Your task to perform on an android device: Open network settings Image 0: 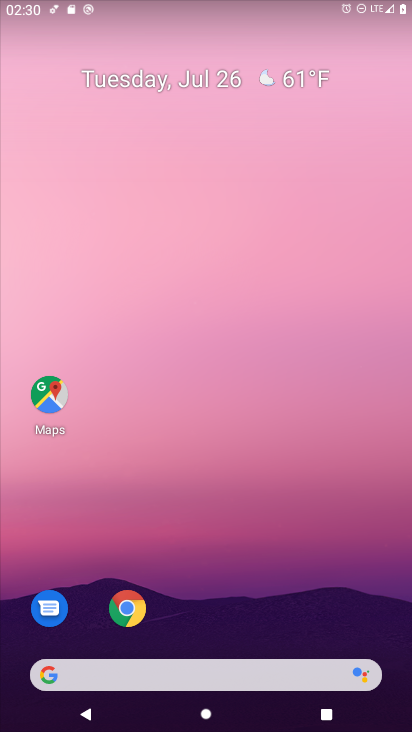
Step 0: drag from (61, 552) to (240, 113)
Your task to perform on an android device: Open network settings Image 1: 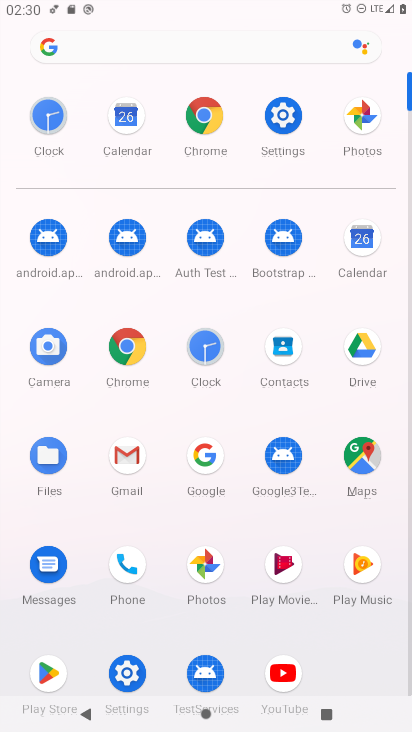
Step 1: click (276, 122)
Your task to perform on an android device: Open network settings Image 2: 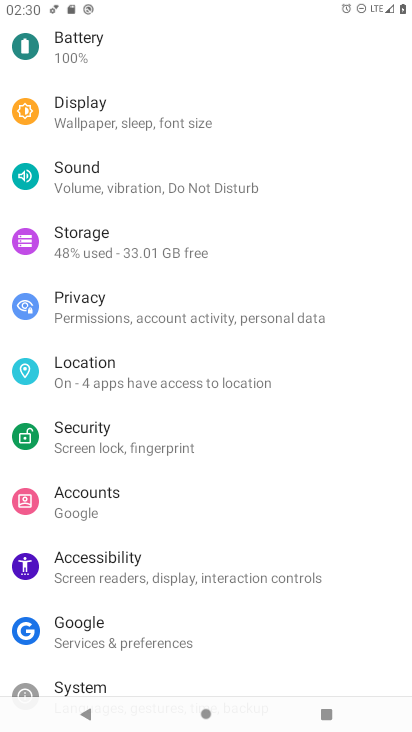
Step 2: press back button
Your task to perform on an android device: Open network settings Image 3: 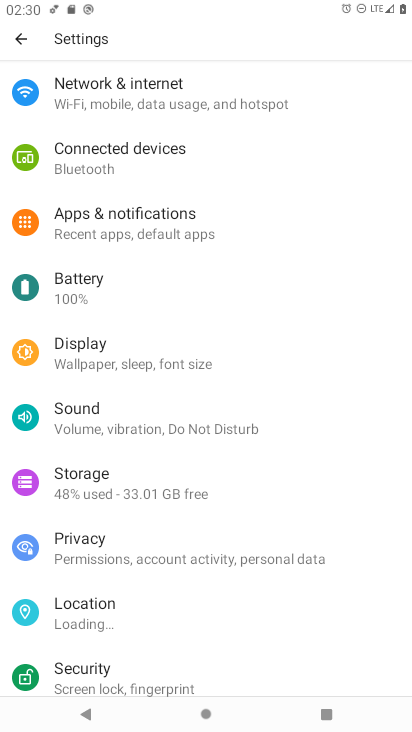
Step 3: click (114, 112)
Your task to perform on an android device: Open network settings Image 4: 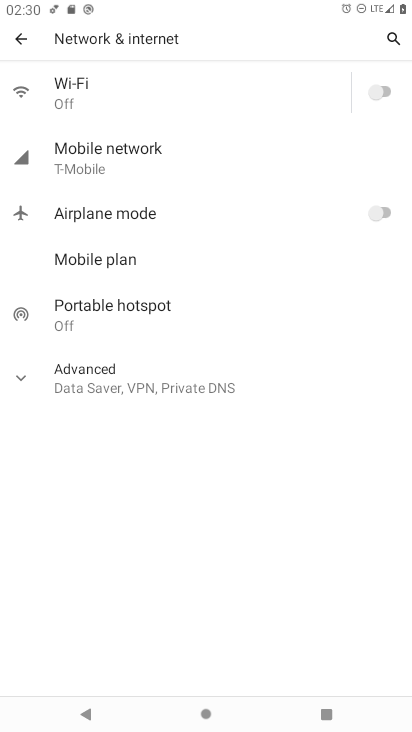
Step 4: task complete